Your task to perform on an android device: move a message to another label in the gmail app Image 0: 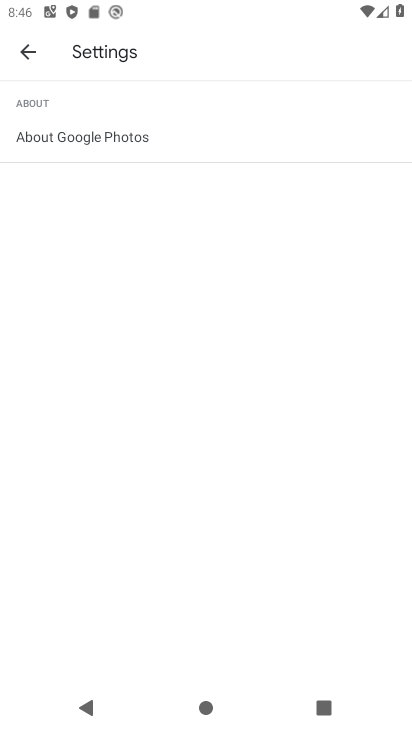
Step 0: press home button
Your task to perform on an android device: move a message to another label in the gmail app Image 1: 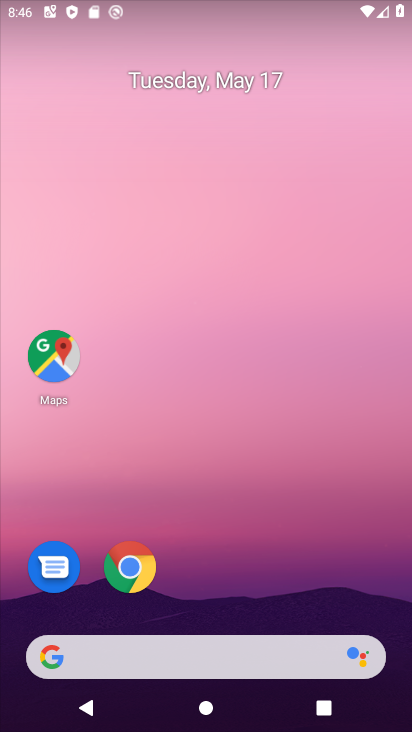
Step 1: drag from (239, 489) to (157, 69)
Your task to perform on an android device: move a message to another label in the gmail app Image 2: 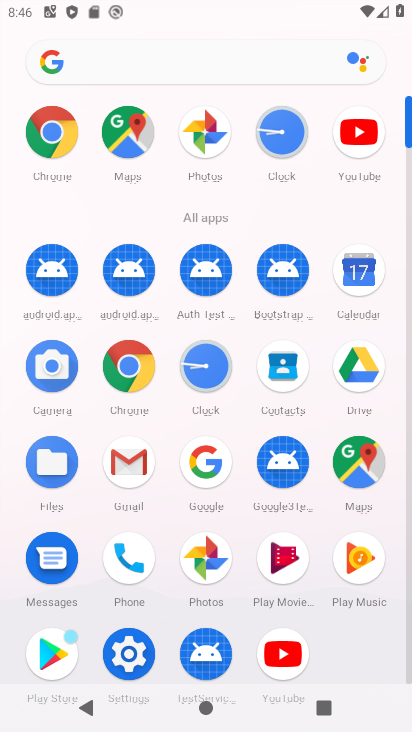
Step 2: click (119, 458)
Your task to perform on an android device: move a message to another label in the gmail app Image 3: 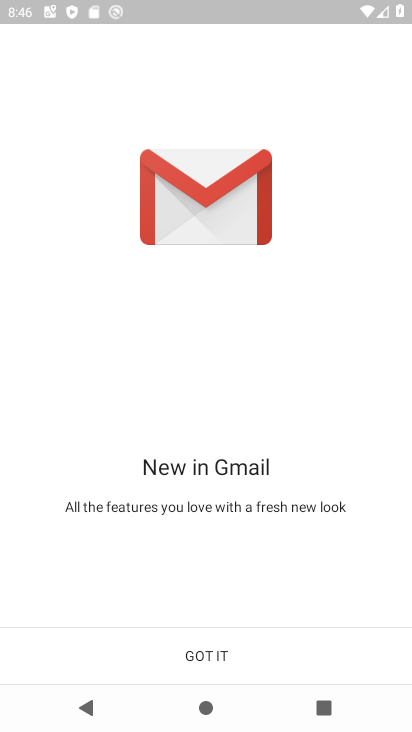
Step 3: click (209, 646)
Your task to perform on an android device: move a message to another label in the gmail app Image 4: 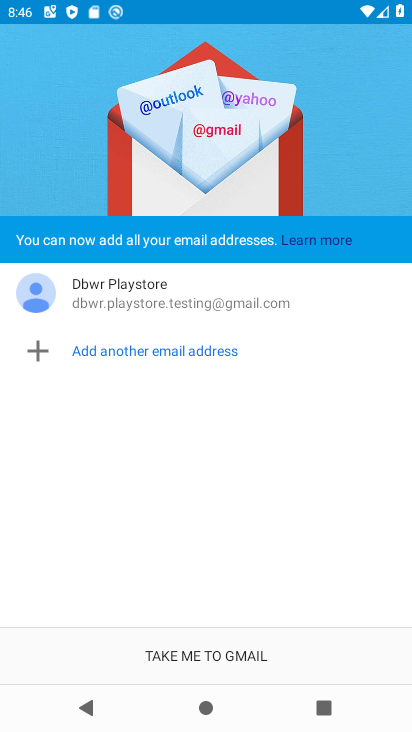
Step 4: click (224, 656)
Your task to perform on an android device: move a message to another label in the gmail app Image 5: 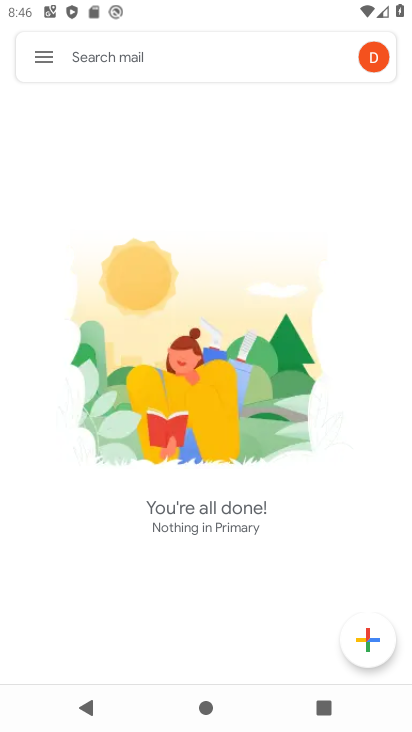
Step 5: click (37, 57)
Your task to perform on an android device: move a message to another label in the gmail app Image 6: 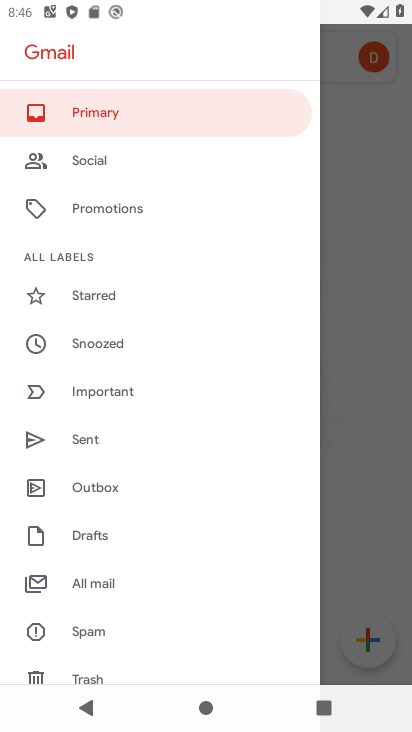
Step 6: drag from (160, 450) to (142, 260)
Your task to perform on an android device: move a message to another label in the gmail app Image 7: 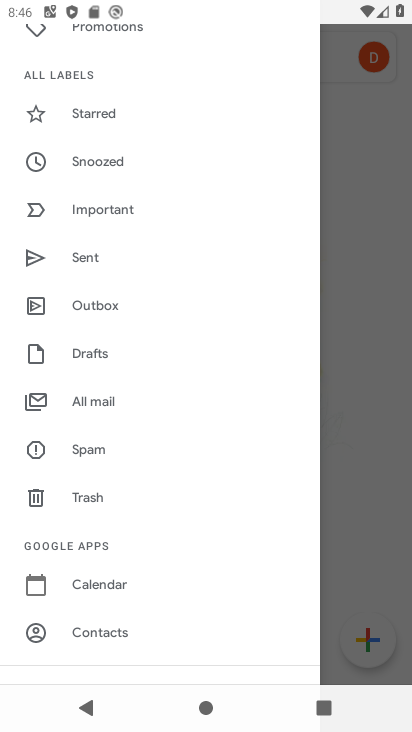
Step 7: click (99, 395)
Your task to perform on an android device: move a message to another label in the gmail app Image 8: 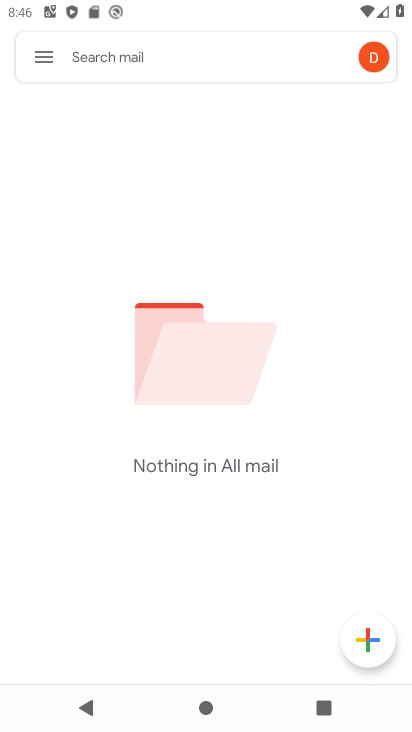
Step 8: task complete